Your task to perform on an android device: open device folders in google photos Image 0: 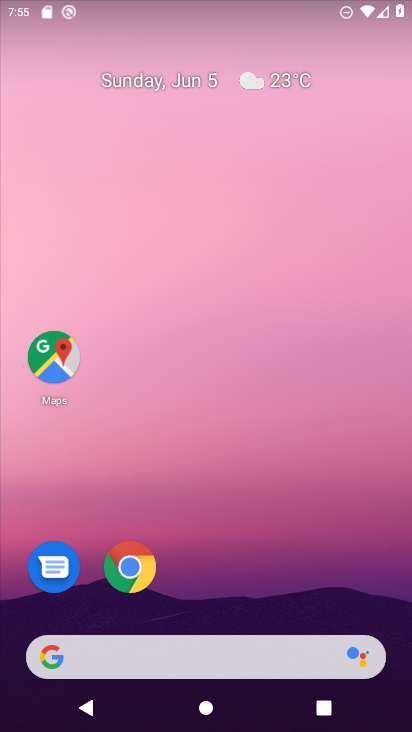
Step 0: drag from (381, 625) to (230, 0)
Your task to perform on an android device: open device folders in google photos Image 1: 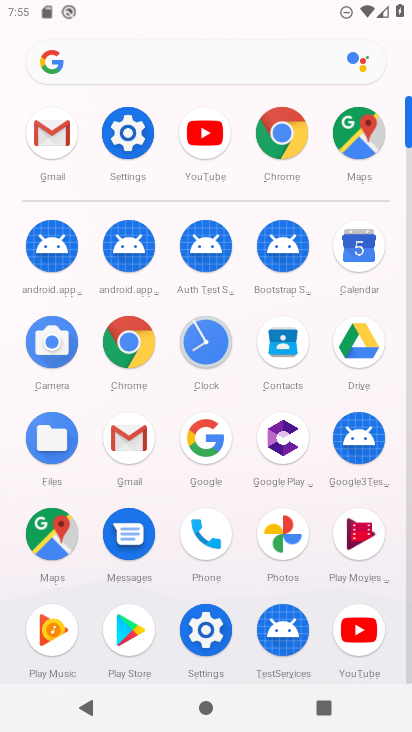
Step 1: click (271, 540)
Your task to perform on an android device: open device folders in google photos Image 2: 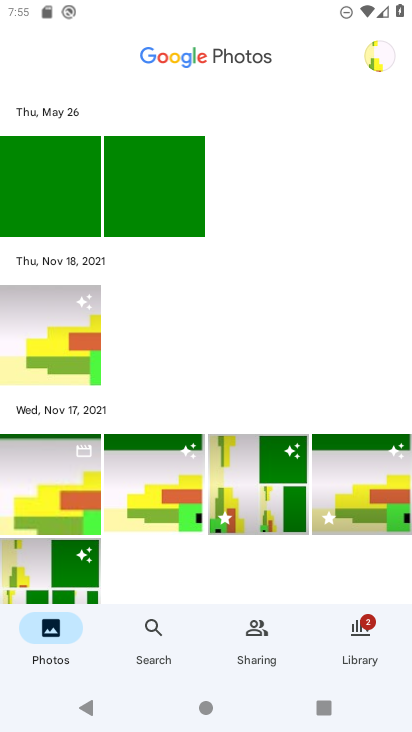
Step 2: task complete